Your task to perform on an android device: change the clock display to analog Image 0: 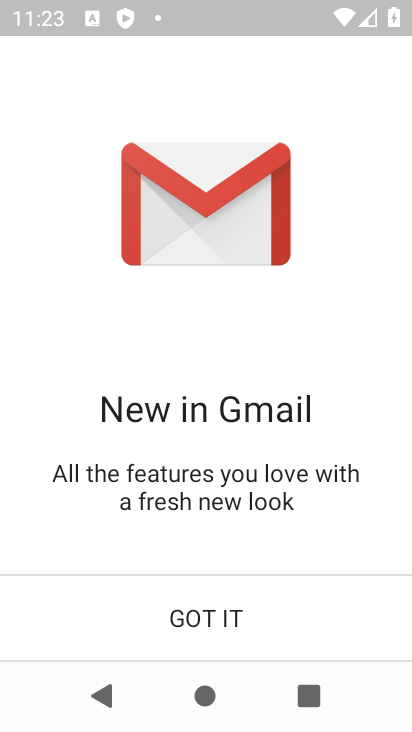
Step 0: press home button
Your task to perform on an android device: change the clock display to analog Image 1: 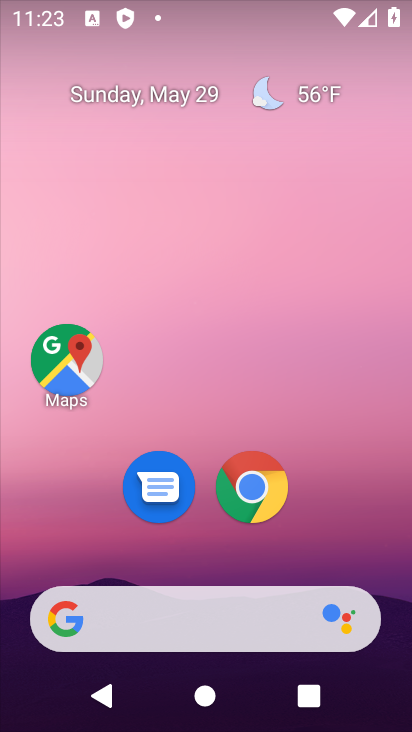
Step 1: drag from (220, 686) to (237, 199)
Your task to perform on an android device: change the clock display to analog Image 2: 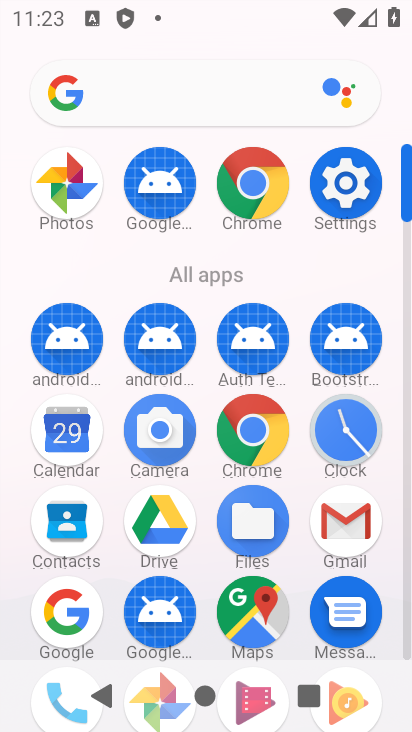
Step 2: click (352, 444)
Your task to perform on an android device: change the clock display to analog Image 3: 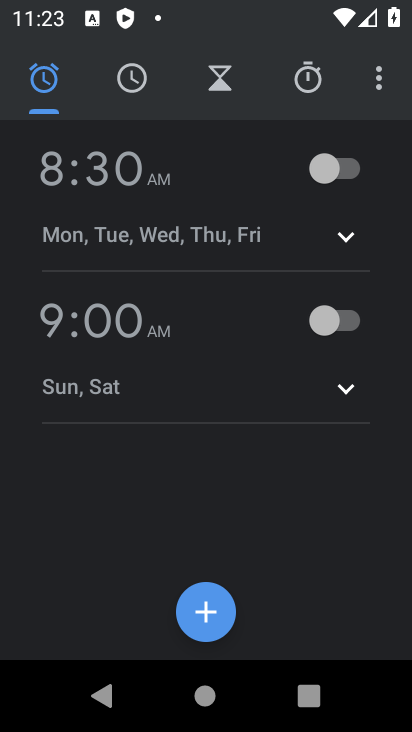
Step 3: click (382, 94)
Your task to perform on an android device: change the clock display to analog Image 4: 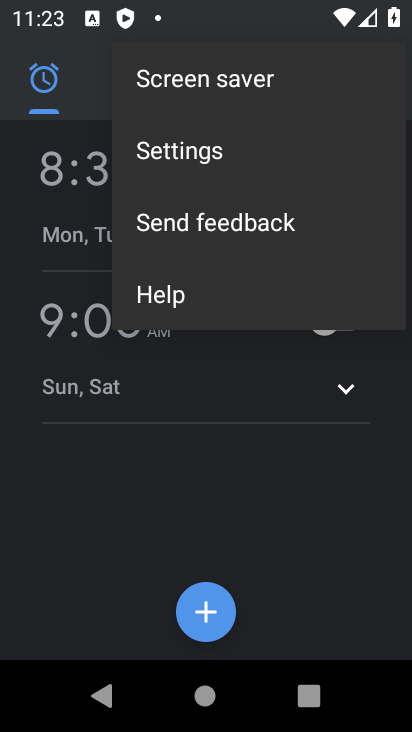
Step 4: click (225, 167)
Your task to perform on an android device: change the clock display to analog Image 5: 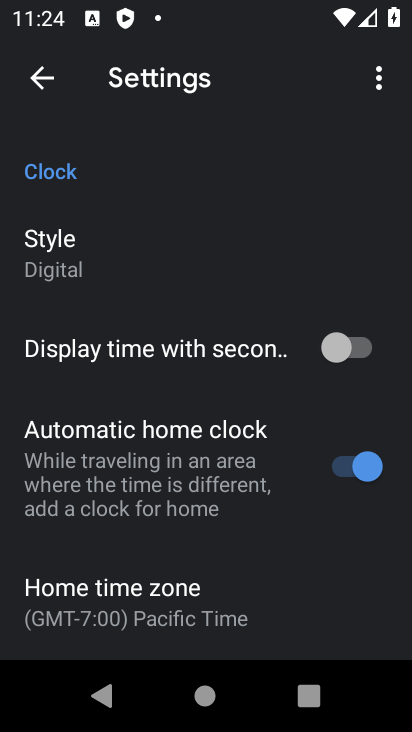
Step 5: click (122, 42)
Your task to perform on an android device: change the clock display to analog Image 6: 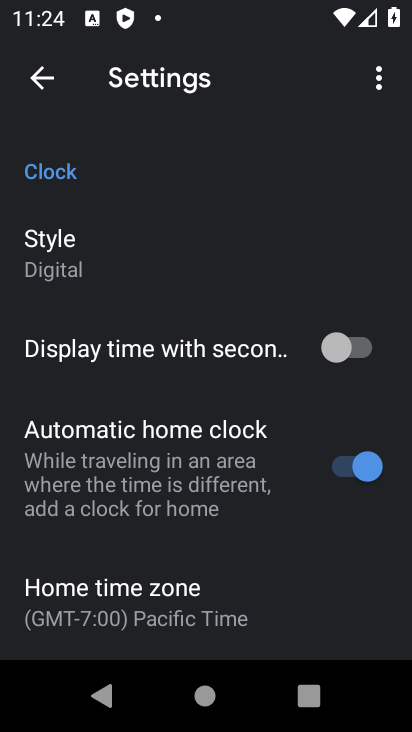
Step 6: click (104, 258)
Your task to perform on an android device: change the clock display to analog Image 7: 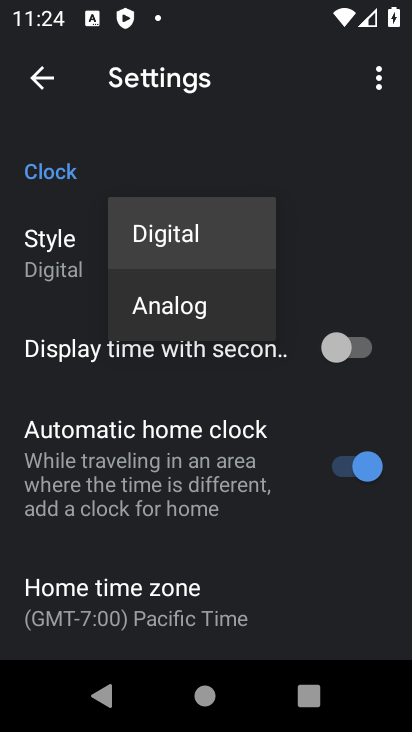
Step 7: click (144, 305)
Your task to perform on an android device: change the clock display to analog Image 8: 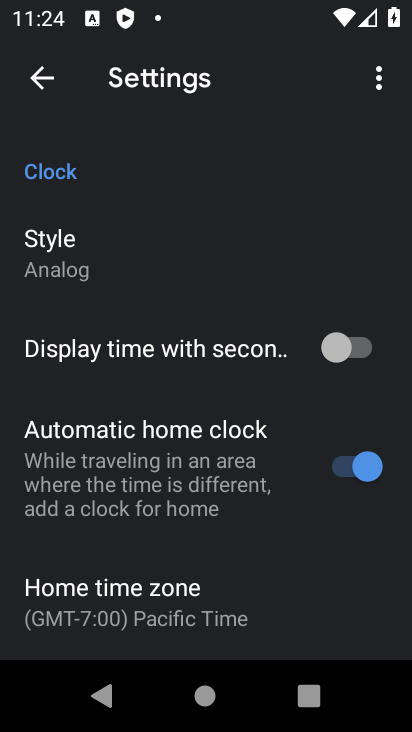
Step 8: task complete